Your task to perform on an android device: turn off smart reply in the gmail app Image 0: 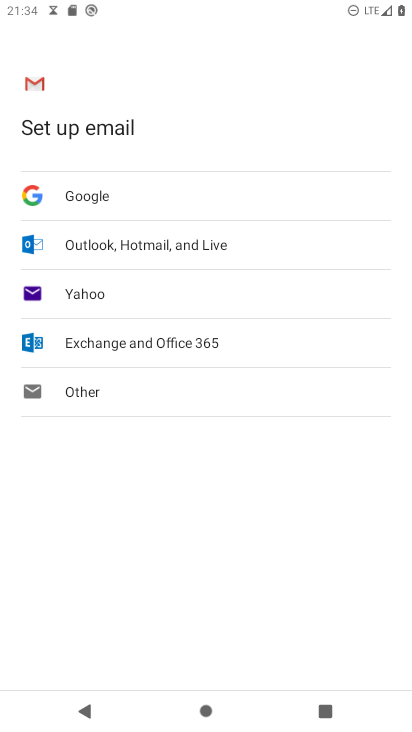
Step 0: press home button
Your task to perform on an android device: turn off smart reply in the gmail app Image 1: 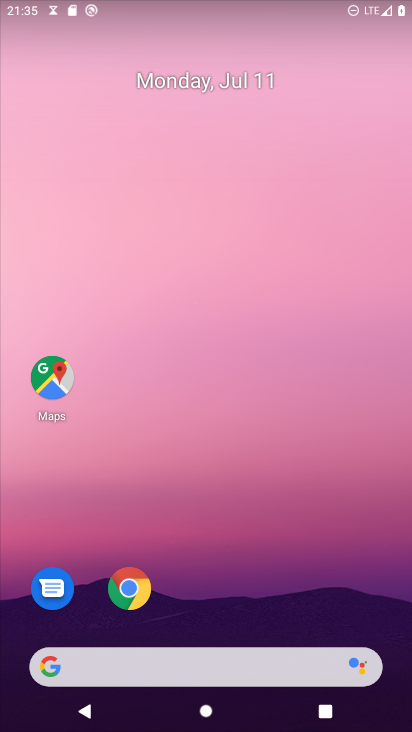
Step 1: drag from (233, 618) to (304, 80)
Your task to perform on an android device: turn off smart reply in the gmail app Image 2: 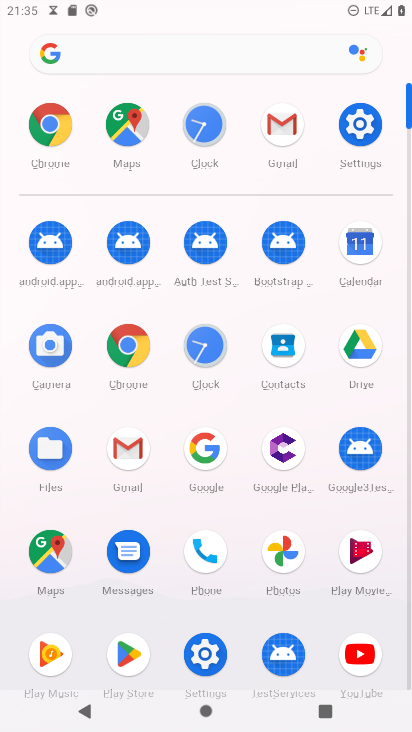
Step 2: click (284, 119)
Your task to perform on an android device: turn off smart reply in the gmail app Image 3: 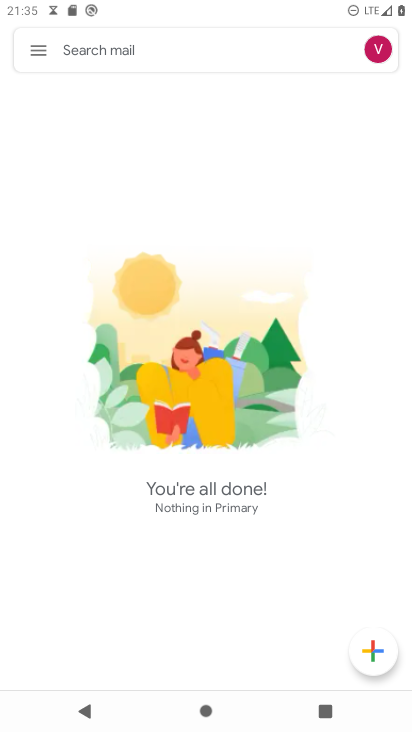
Step 3: click (33, 42)
Your task to perform on an android device: turn off smart reply in the gmail app Image 4: 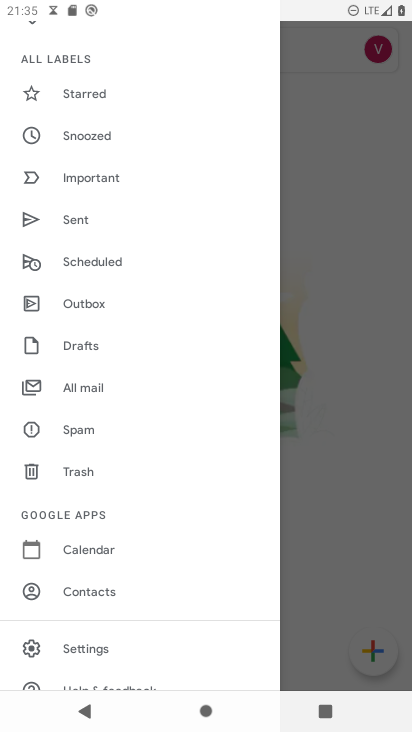
Step 4: click (92, 644)
Your task to perform on an android device: turn off smart reply in the gmail app Image 5: 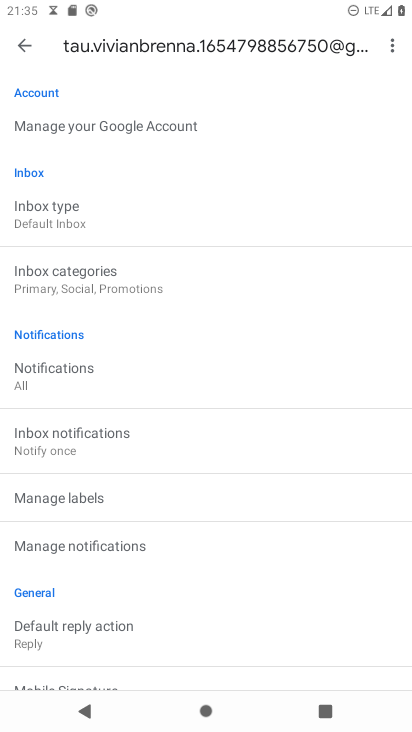
Step 5: task complete